Your task to perform on an android device: turn off sleep mode Image 0: 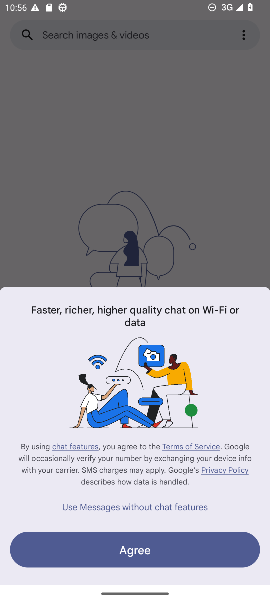
Step 0: press home button
Your task to perform on an android device: turn off sleep mode Image 1: 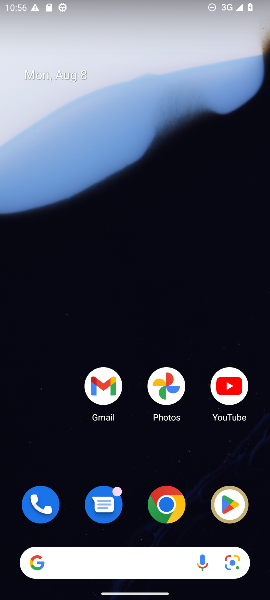
Step 1: drag from (139, 473) to (173, 162)
Your task to perform on an android device: turn off sleep mode Image 2: 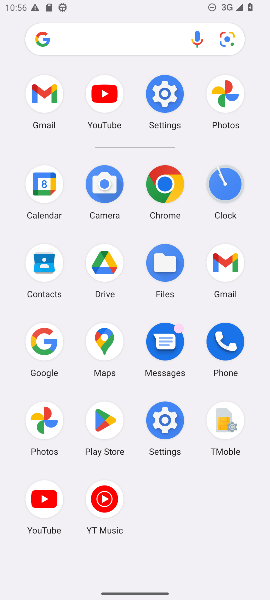
Step 2: click (167, 100)
Your task to perform on an android device: turn off sleep mode Image 3: 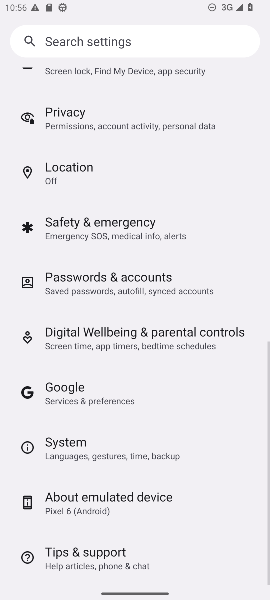
Step 3: click (142, 43)
Your task to perform on an android device: turn off sleep mode Image 4: 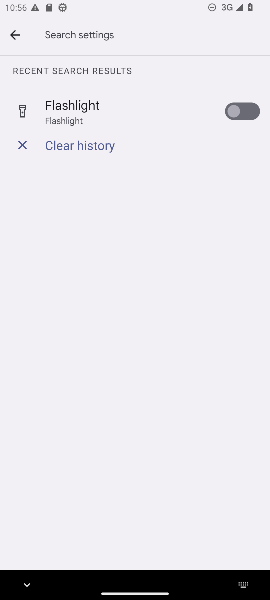
Step 4: type "sleep mode"
Your task to perform on an android device: turn off sleep mode Image 5: 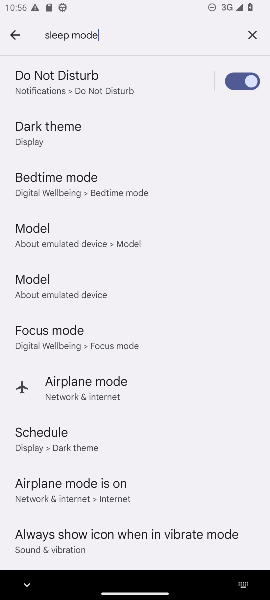
Step 5: click (100, 187)
Your task to perform on an android device: turn off sleep mode Image 6: 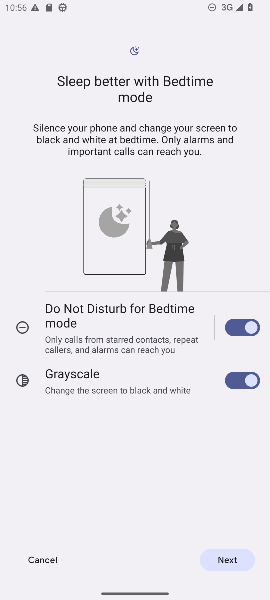
Step 6: click (241, 553)
Your task to perform on an android device: turn off sleep mode Image 7: 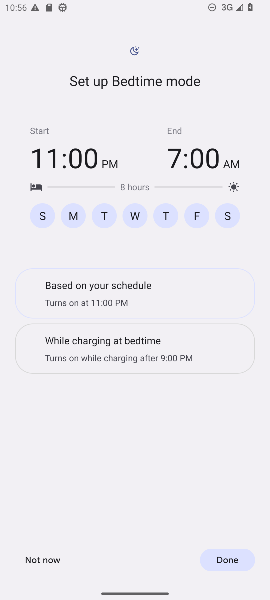
Step 7: task complete